Your task to perform on an android device: turn on showing notifications on the lock screen Image 0: 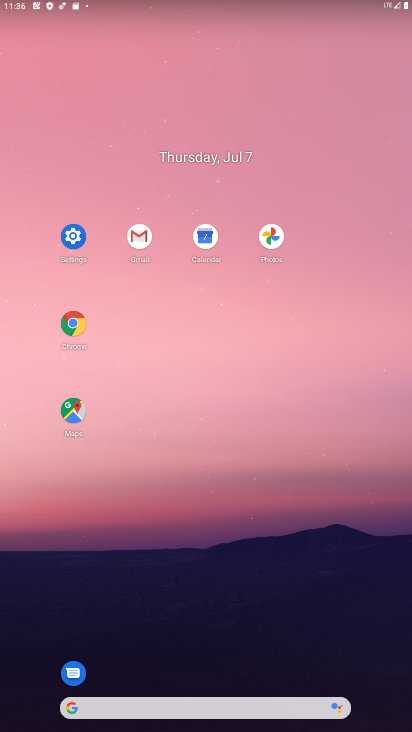
Step 0: click (68, 235)
Your task to perform on an android device: turn on showing notifications on the lock screen Image 1: 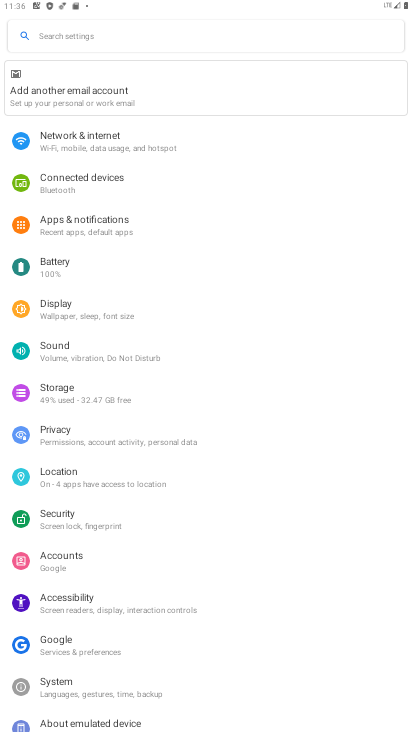
Step 1: click (117, 221)
Your task to perform on an android device: turn on showing notifications on the lock screen Image 2: 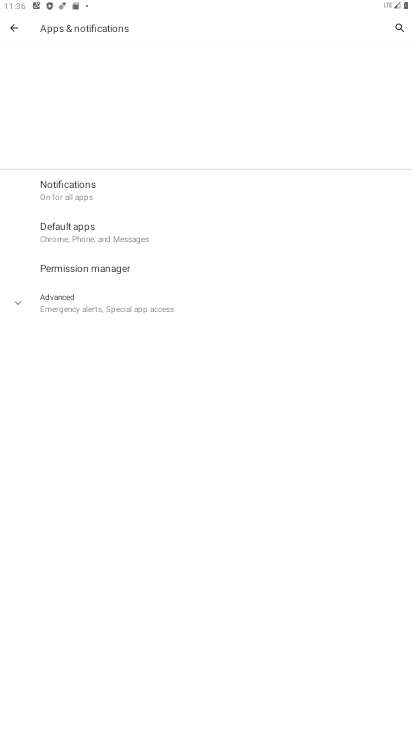
Step 2: click (107, 190)
Your task to perform on an android device: turn on showing notifications on the lock screen Image 3: 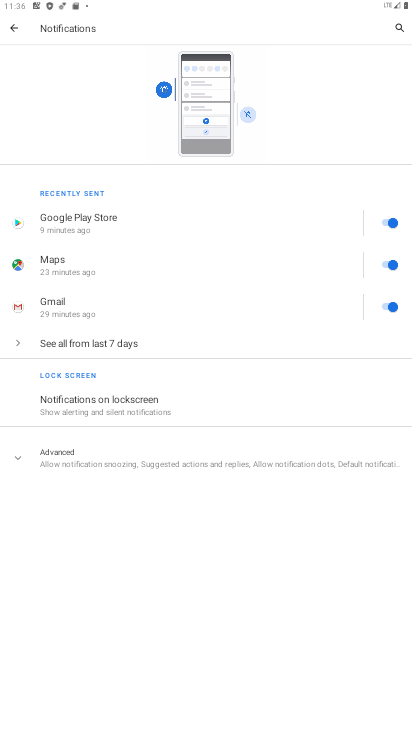
Step 3: click (167, 419)
Your task to perform on an android device: turn on showing notifications on the lock screen Image 4: 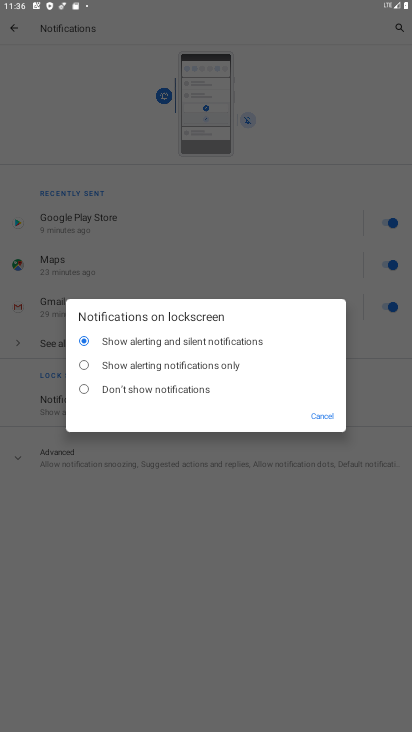
Step 4: task complete